Your task to perform on an android device: set the timer Image 0: 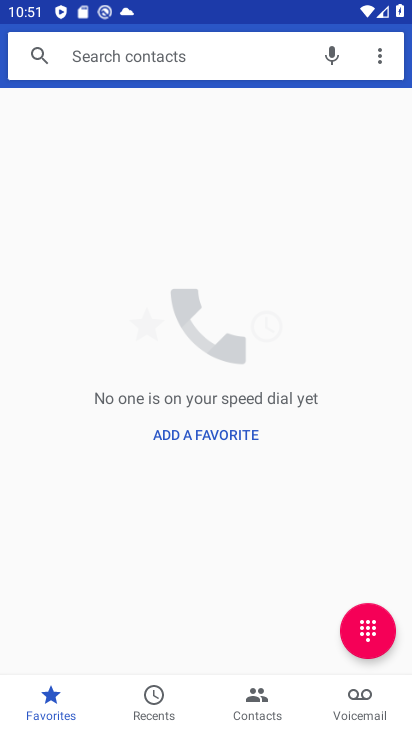
Step 0: press back button
Your task to perform on an android device: set the timer Image 1: 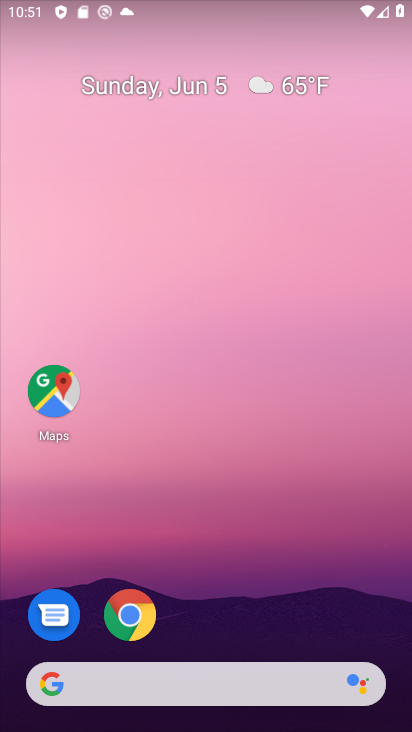
Step 1: drag from (264, 517) to (249, 284)
Your task to perform on an android device: set the timer Image 2: 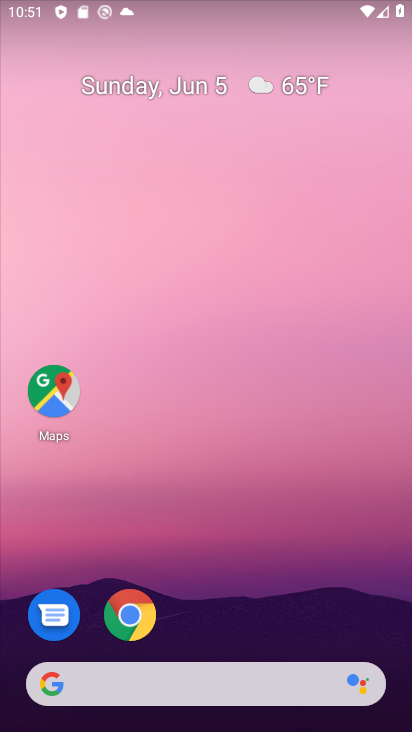
Step 2: drag from (298, 579) to (262, 18)
Your task to perform on an android device: set the timer Image 3: 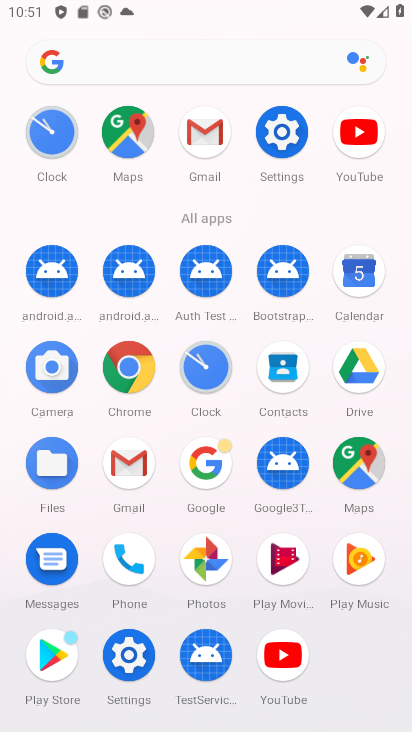
Step 3: click (207, 369)
Your task to perform on an android device: set the timer Image 4: 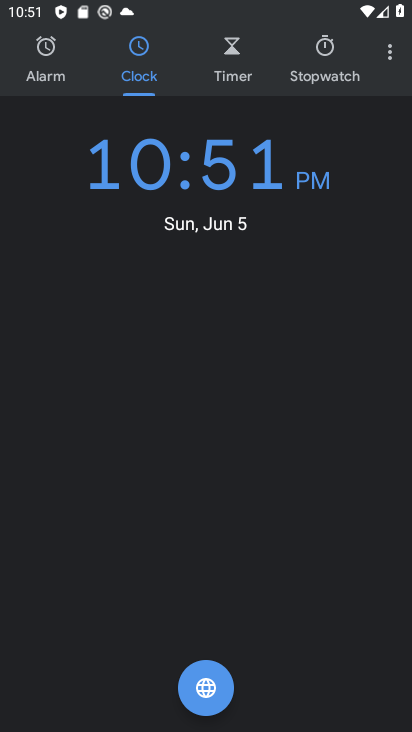
Step 4: click (233, 61)
Your task to perform on an android device: set the timer Image 5: 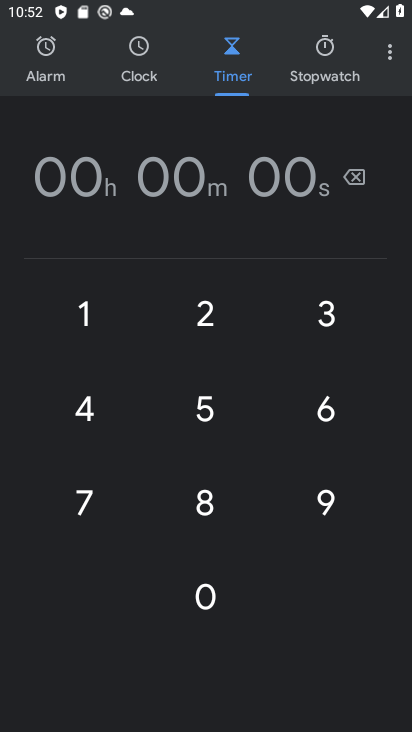
Step 5: type "1357"
Your task to perform on an android device: set the timer Image 6: 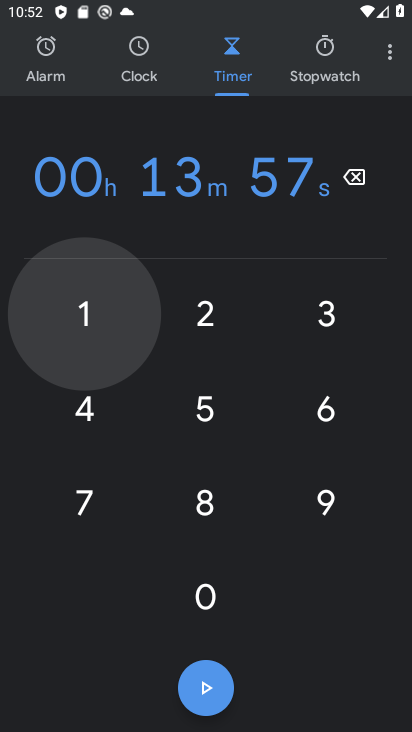
Step 6: click (202, 686)
Your task to perform on an android device: set the timer Image 7: 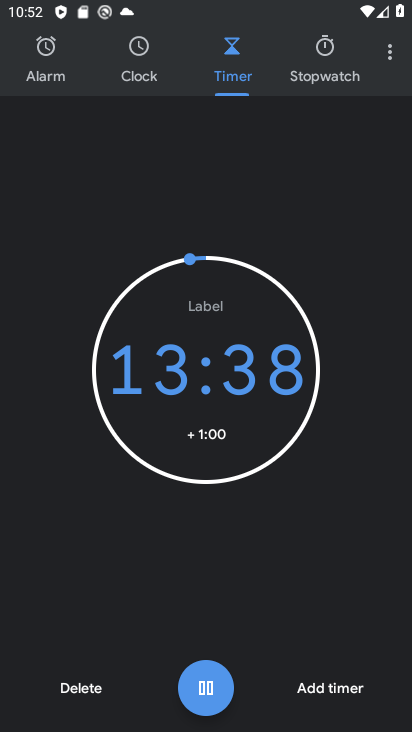
Step 7: click (207, 682)
Your task to perform on an android device: set the timer Image 8: 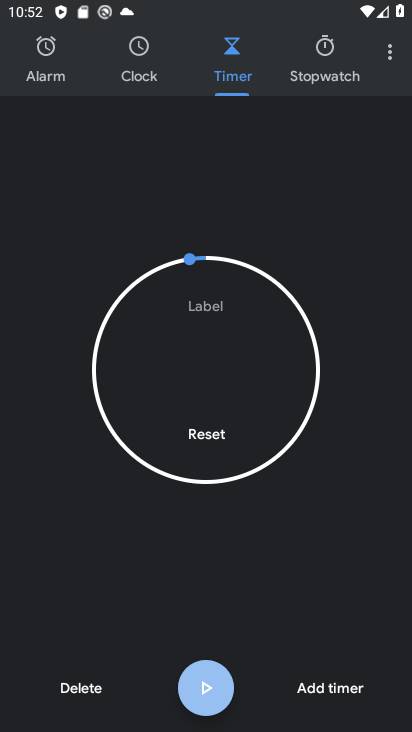
Step 8: click (205, 691)
Your task to perform on an android device: set the timer Image 9: 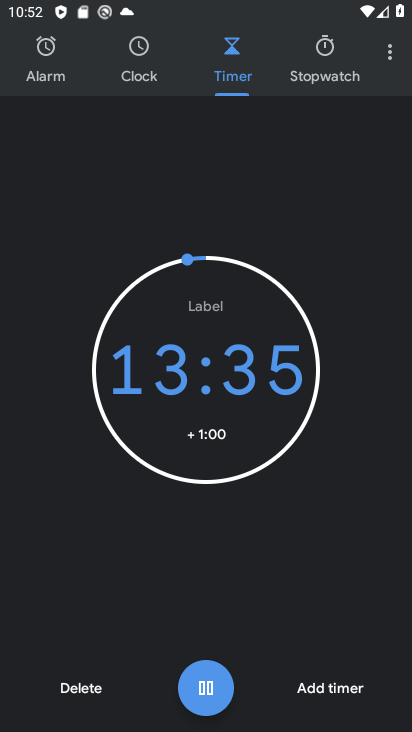
Step 9: task complete